Your task to perform on an android device: turn on improve location accuracy Image 0: 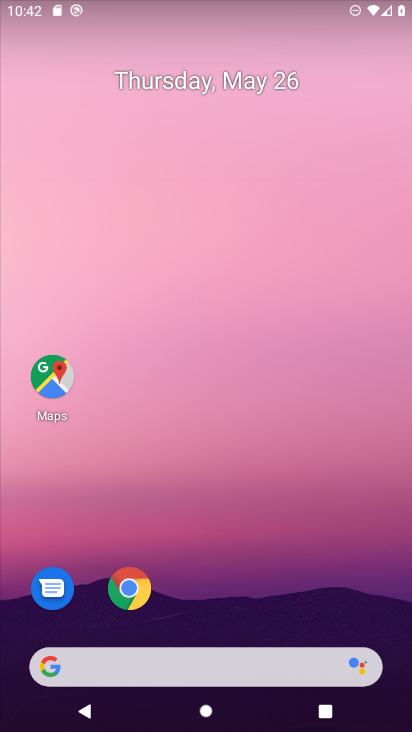
Step 0: drag from (334, 596) to (305, 123)
Your task to perform on an android device: turn on improve location accuracy Image 1: 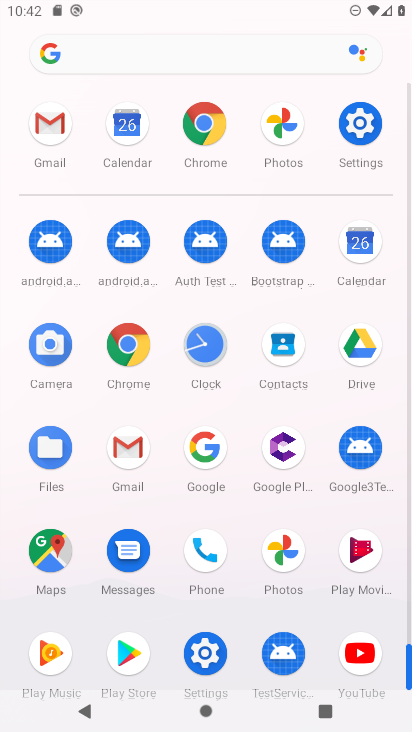
Step 1: click (205, 649)
Your task to perform on an android device: turn on improve location accuracy Image 2: 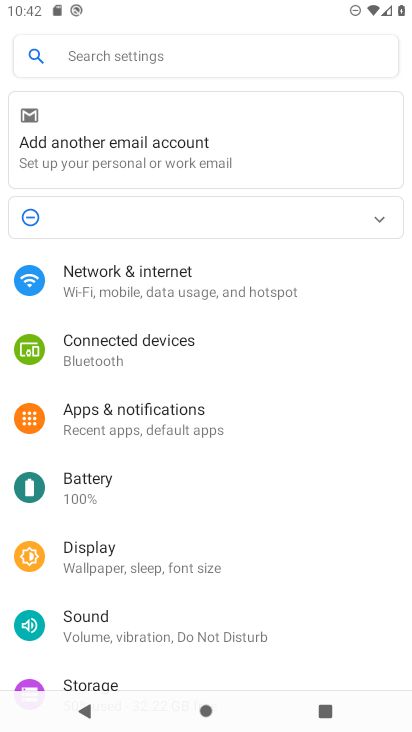
Step 2: drag from (288, 611) to (263, 208)
Your task to perform on an android device: turn on improve location accuracy Image 3: 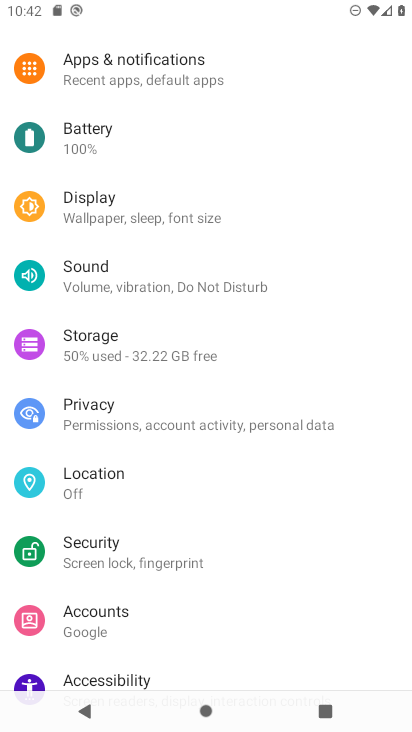
Step 3: click (94, 477)
Your task to perform on an android device: turn on improve location accuracy Image 4: 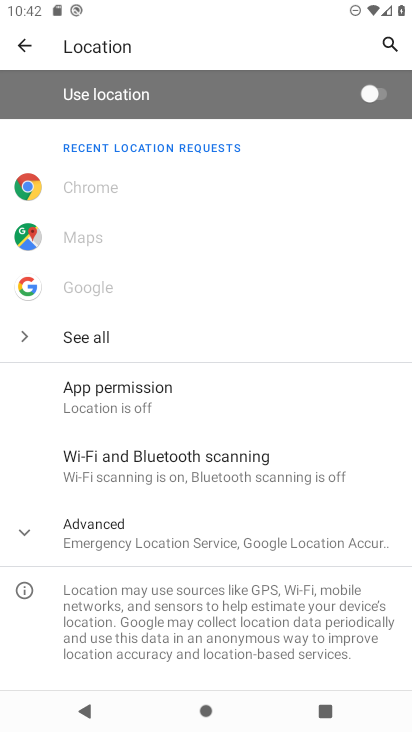
Step 4: click (29, 532)
Your task to perform on an android device: turn on improve location accuracy Image 5: 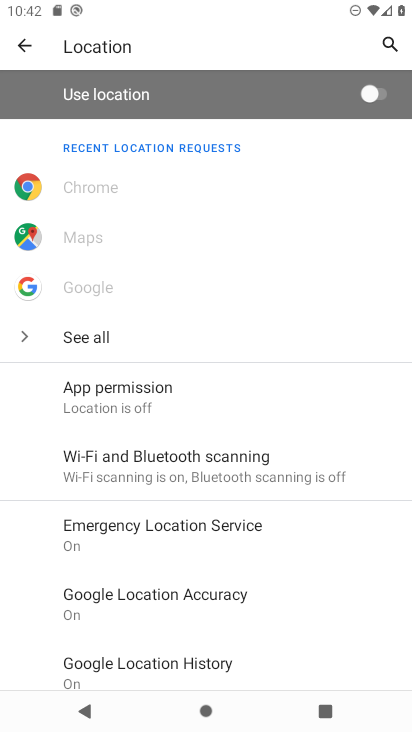
Step 5: click (124, 586)
Your task to perform on an android device: turn on improve location accuracy Image 6: 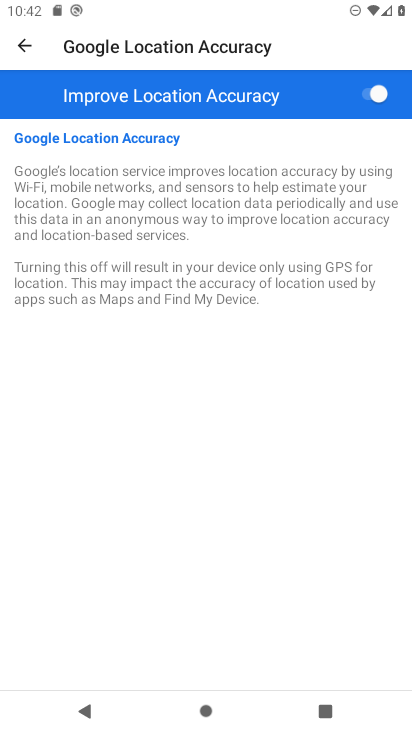
Step 6: task complete